Your task to perform on an android device: check android version Image 0: 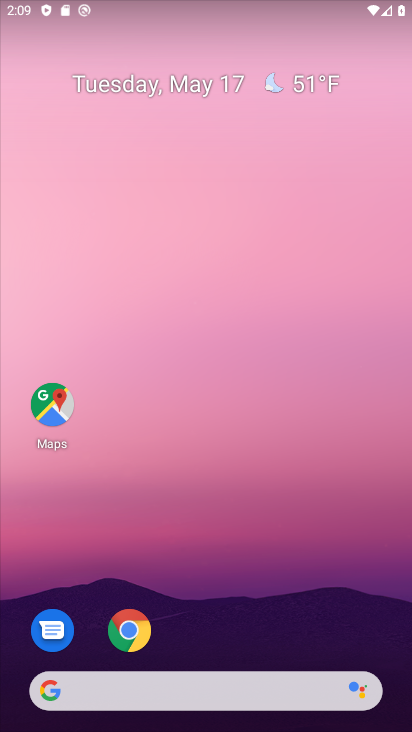
Step 0: click (229, 6)
Your task to perform on an android device: check android version Image 1: 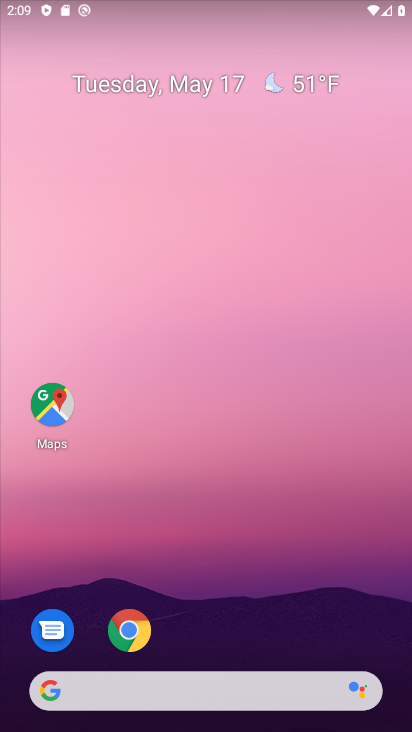
Step 1: drag from (222, 602) to (205, 23)
Your task to perform on an android device: check android version Image 2: 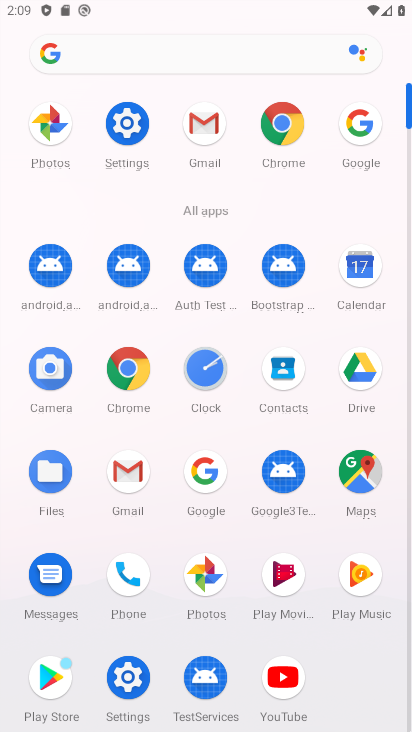
Step 2: click (127, 124)
Your task to perform on an android device: check android version Image 3: 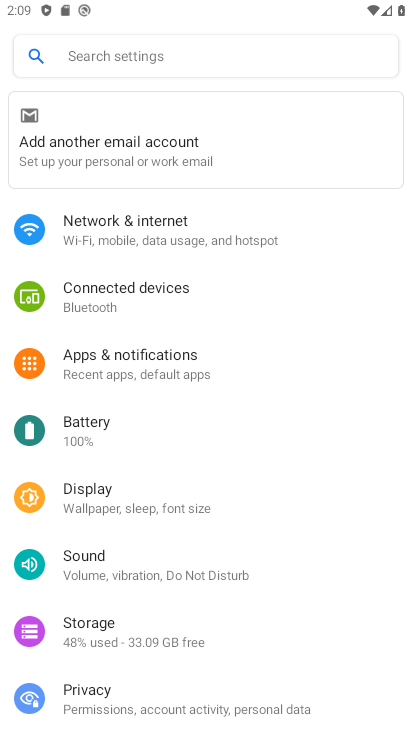
Step 3: drag from (223, 662) to (197, 357)
Your task to perform on an android device: check android version Image 4: 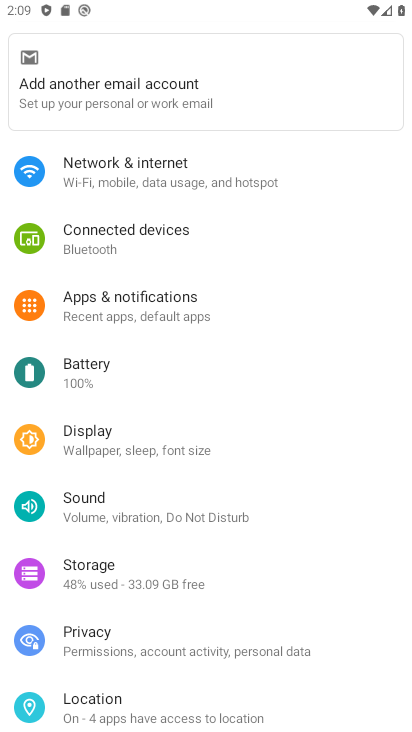
Step 4: drag from (180, 671) to (197, 98)
Your task to perform on an android device: check android version Image 5: 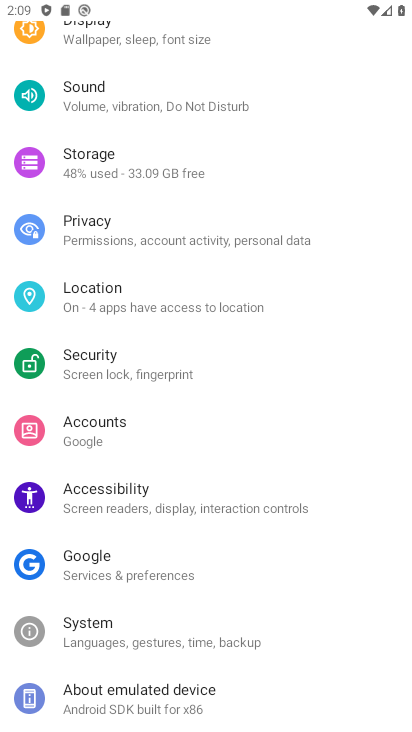
Step 5: click (150, 700)
Your task to perform on an android device: check android version Image 6: 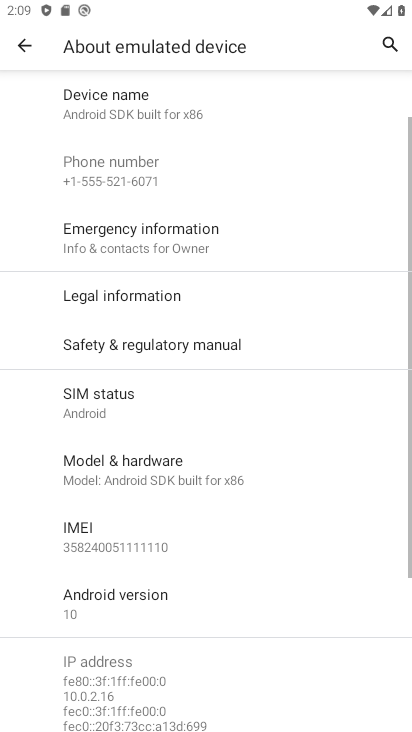
Step 6: click (133, 625)
Your task to perform on an android device: check android version Image 7: 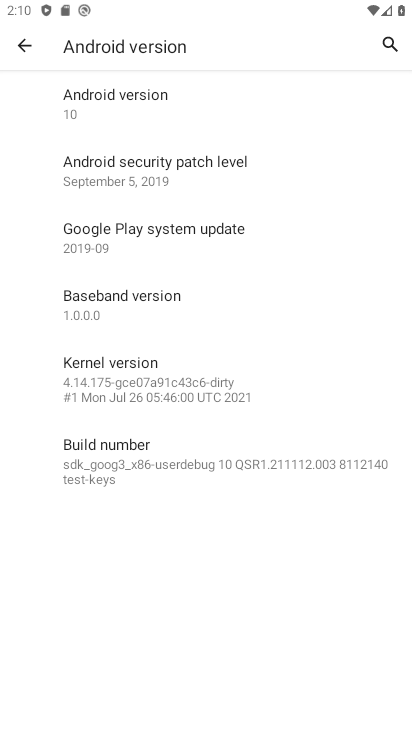
Step 7: task complete